Your task to perform on an android device: set an alarm Image 0: 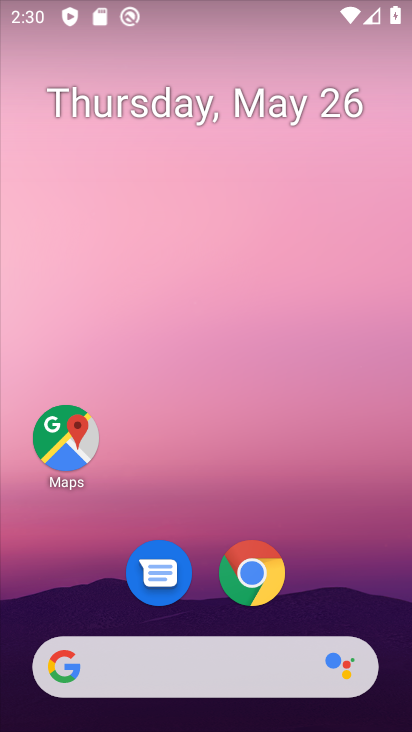
Step 0: drag from (338, 606) to (270, 188)
Your task to perform on an android device: set an alarm Image 1: 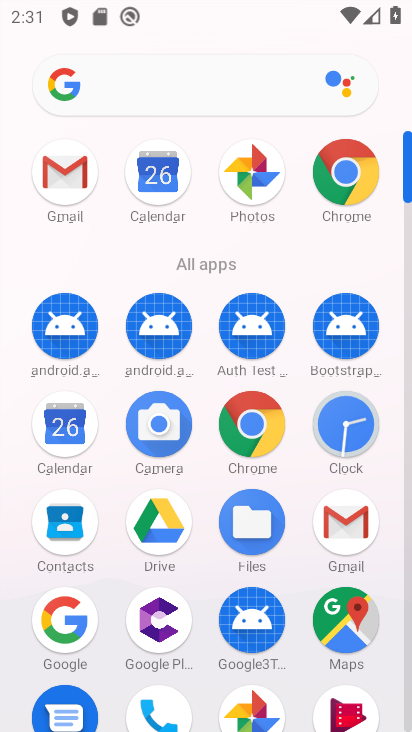
Step 1: drag from (201, 573) to (225, 395)
Your task to perform on an android device: set an alarm Image 2: 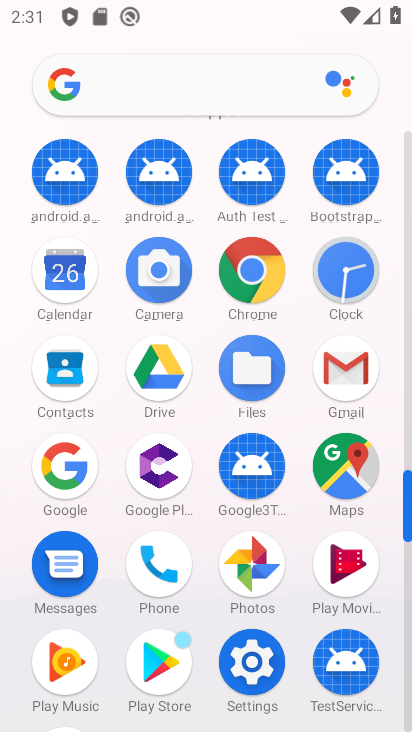
Step 2: click (349, 273)
Your task to perform on an android device: set an alarm Image 3: 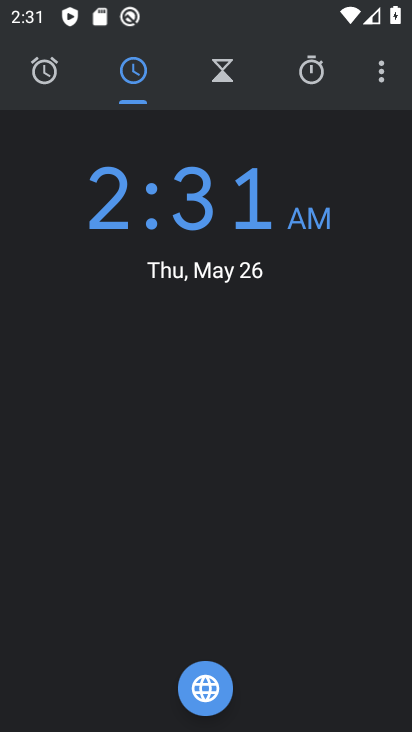
Step 3: click (42, 66)
Your task to perform on an android device: set an alarm Image 4: 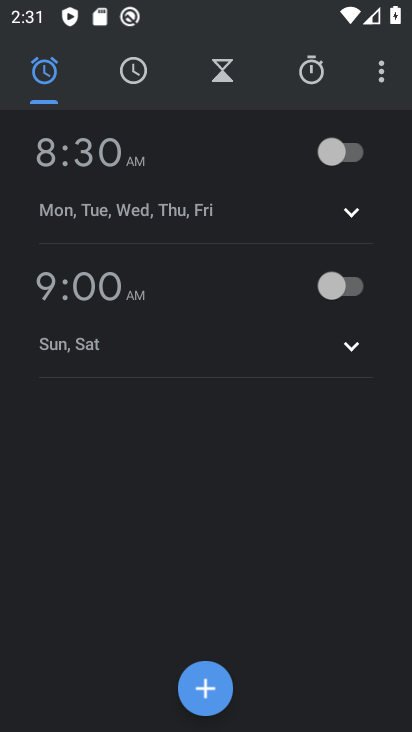
Step 4: click (208, 687)
Your task to perform on an android device: set an alarm Image 5: 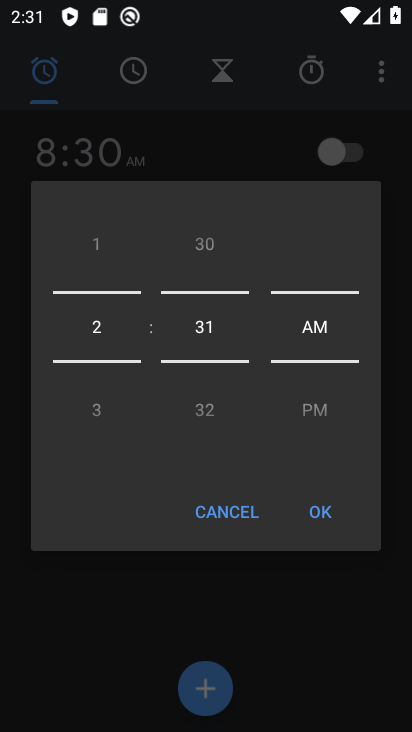
Step 5: drag from (94, 403) to (126, 268)
Your task to perform on an android device: set an alarm Image 6: 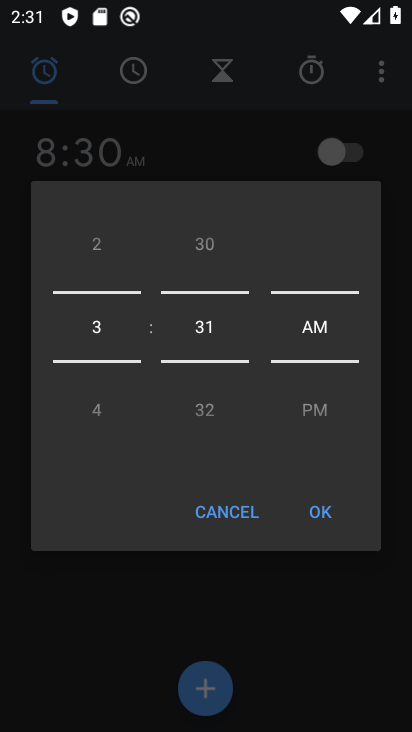
Step 6: drag from (102, 404) to (148, 256)
Your task to perform on an android device: set an alarm Image 7: 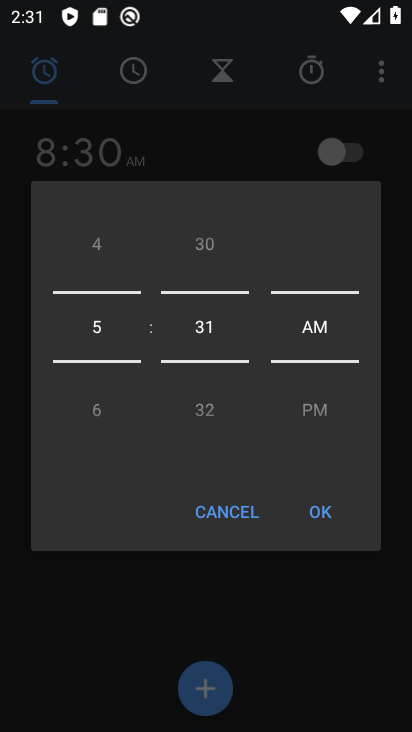
Step 7: drag from (102, 413) to (144, 273)
Your task to perform on an android device: set an alarm Image 8: 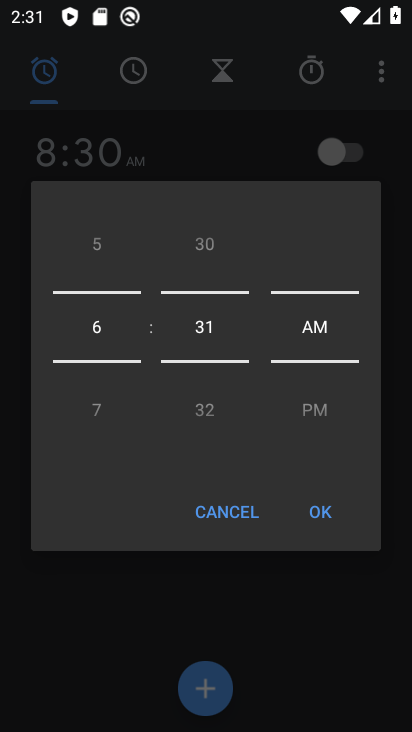
Step 8: drag from (102, 414) to (136, 274)
Your task to perform on an android device: set an alarm Image 9: 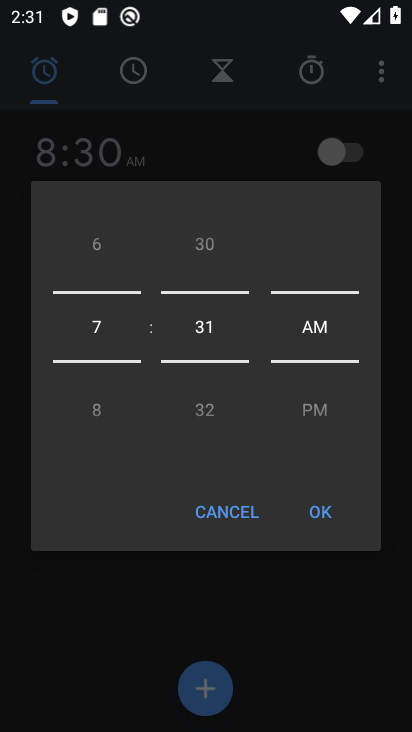
Step 9: drag from (218, 253) to (222, 372)
Your task to perform on an android device: set an alarm Image 10: 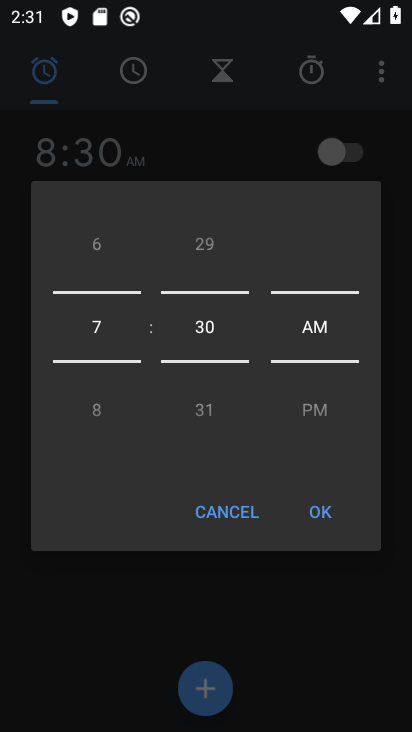
Step 10: drag from (219, 241) to (221, 384)
Your task to perform on an android device: set an alarm Image 11: 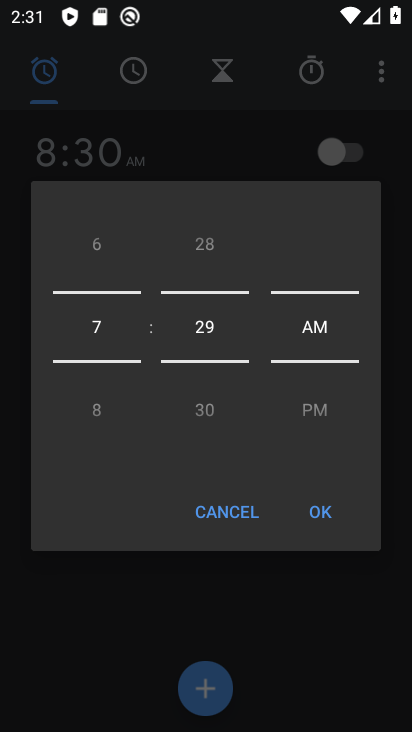
Step 11: drag from (212, 259) to (216, 400)
Your task to perform on an android device: set an alarm Image 12: 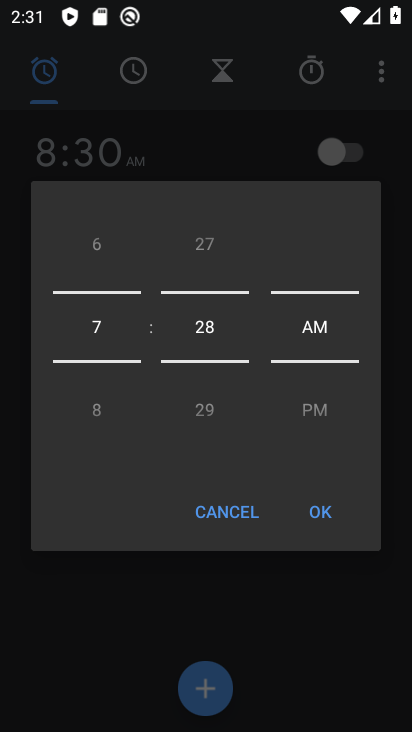
Step 12: drag from (213, 261) to (215, 414)
Your task to perform on an android device: set an alarm Image 13: 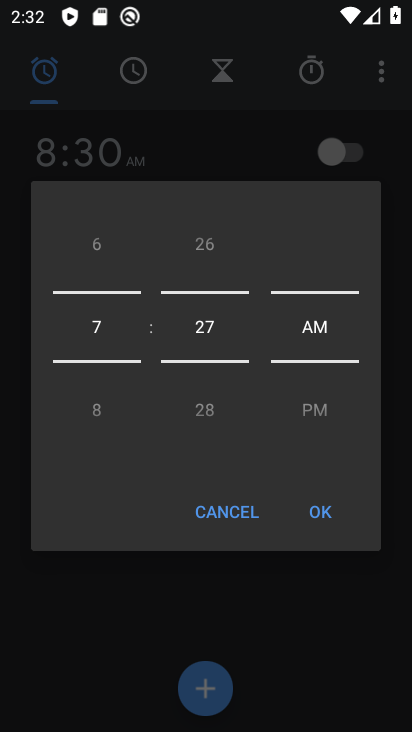
Step 13: drag from (313, 333) to (324, 259)
Your task to perform on an android device: set an alarm Image 14: 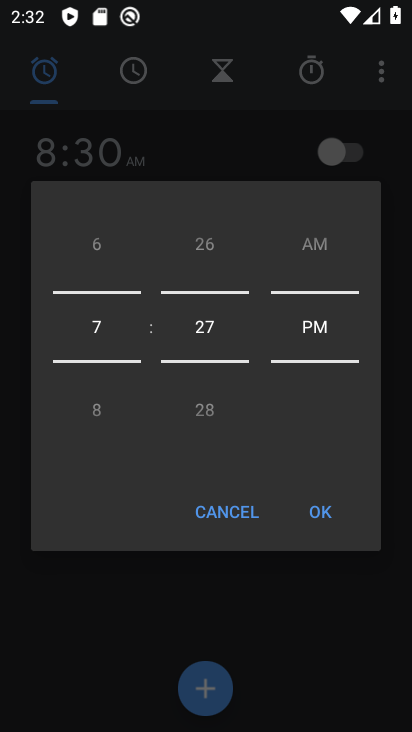
Step 14: click (319, 508)
Your task to perform on an android device: set an alarm Image 15: 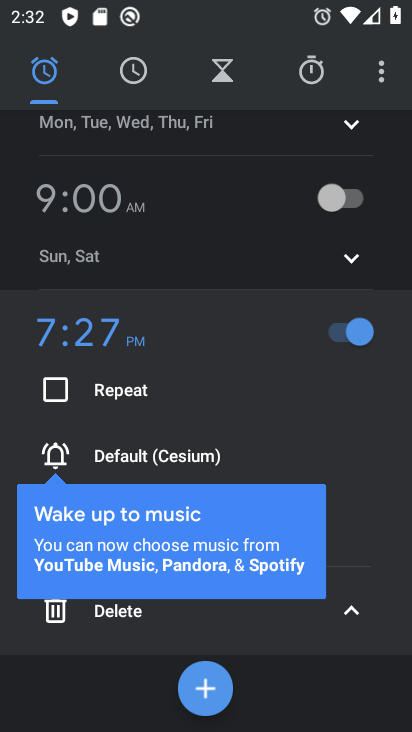
Step 15: click (346, 609)
Your task to perform on an android device: set an alarm Image 16: 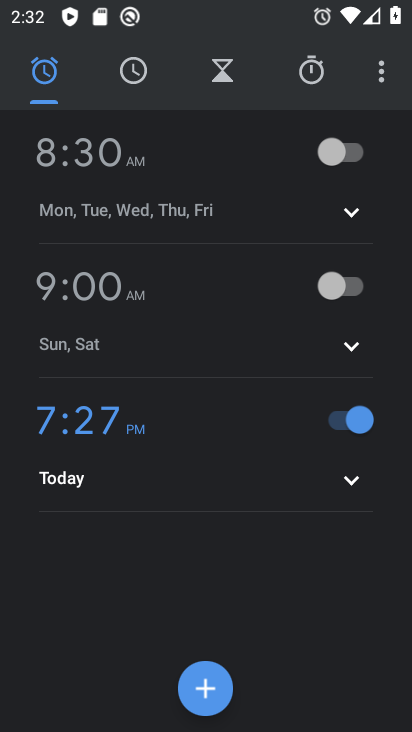
Step 16: task complete